Your task to perform on an android device: move an email to a new category in the gmail app Image 0: 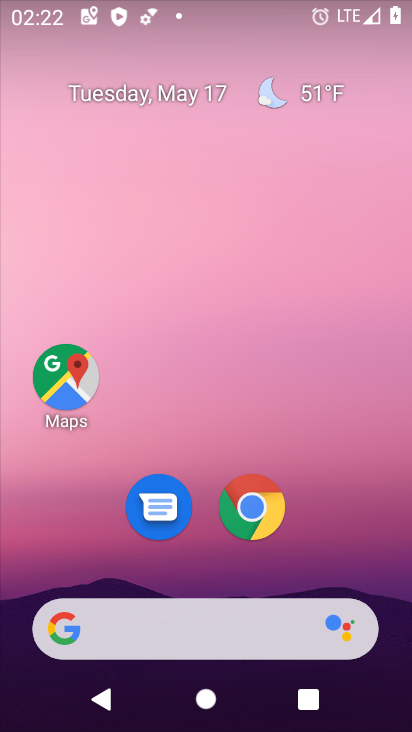
Step 0: drag from (209, 534) to (219, 45)
Your task to perform on an android device: move an email to a new category in the gmail app Image 1: 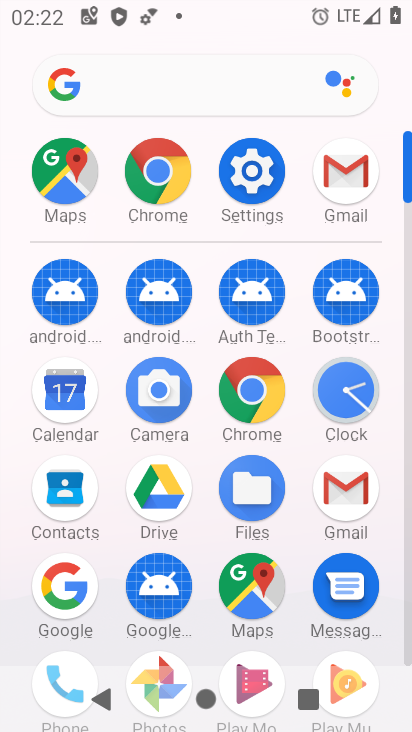
Step 1: click (360, 173)
Your task to perform on an android device: move an email to a new category in the gmail app Image 2: 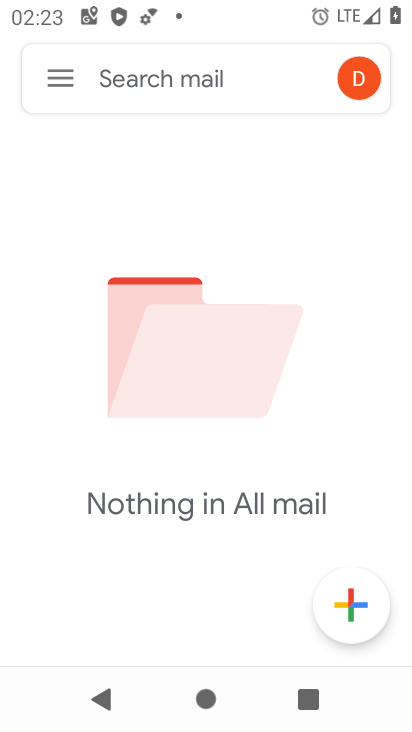
Step 2: task complete